Your task to perform on an android device: Open Chrome and go to the settings page Image 0: 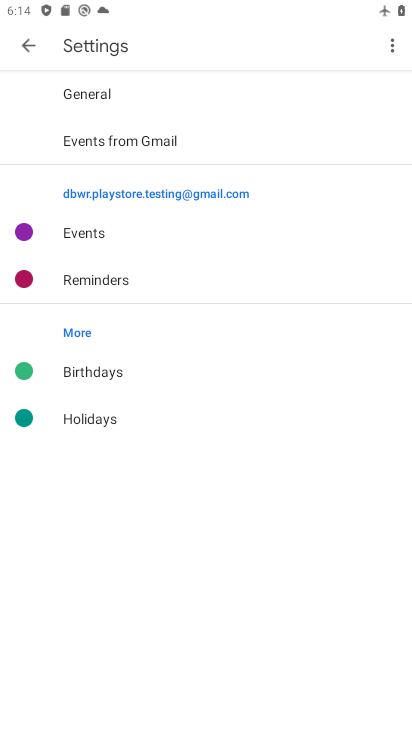
Step 0: press home button
Your task to perform on an android device: Open Chrome and go to the settings page Image 1: 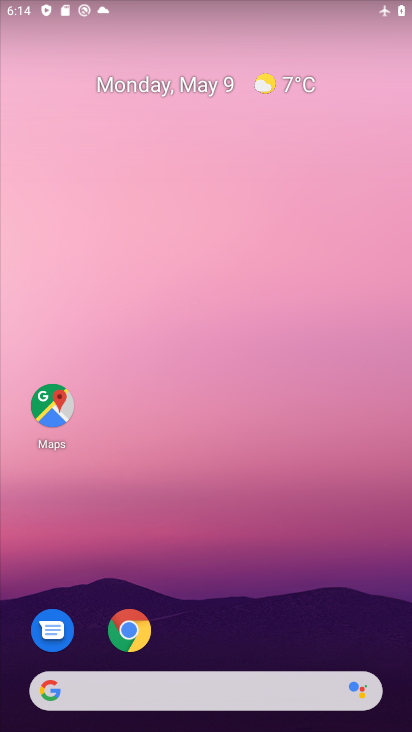
Step 1: click (128, 642)
Your task to perform on an android device: Open Chrome and go to the settings page Image 2: 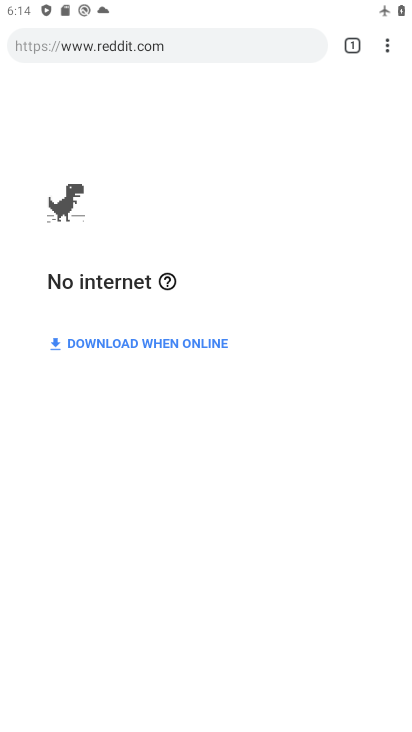
Step 2: click (196, 47)
Your task to perform on an android device: Open Chrome and go to the settings page Image 3: 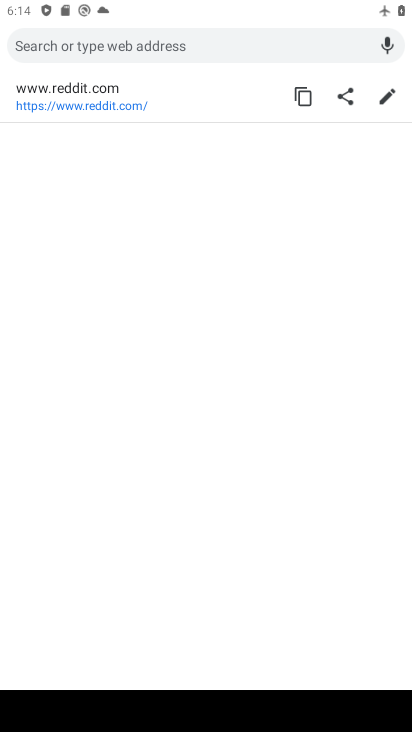
Step 3: press back button
Your task to perform on an android device: Open Chrome and go to the settings page Image 4: 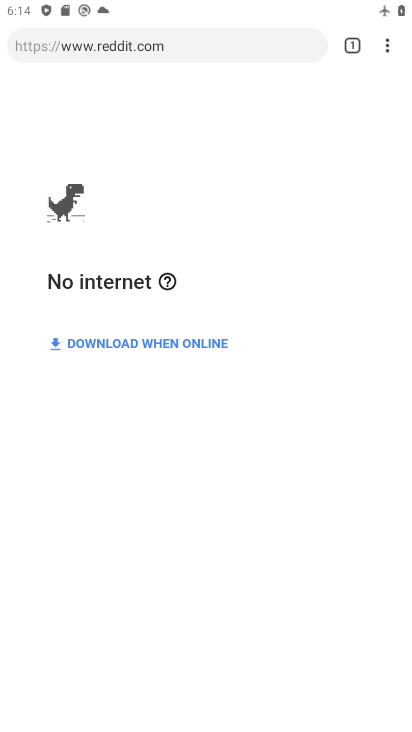
Step 4: click (385, 45)
Your task to perform on an android device: Open Chrome and go to the settings page Image 5: 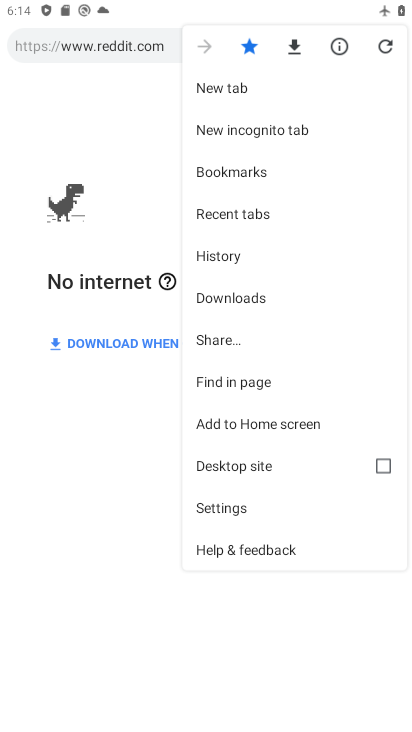
Step 5: click (235, 510)
Your task to perform on an android device: Open Chrome and go to the settings page Image 6: 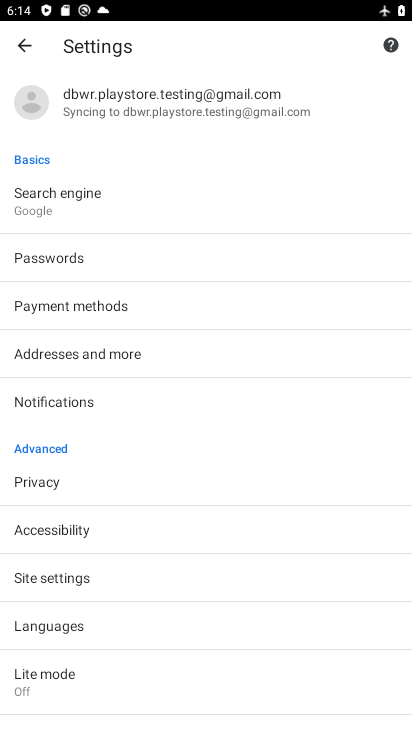
Step 6: task complete